Your task to perform on an android device: find photos in the google photos app Image 0: 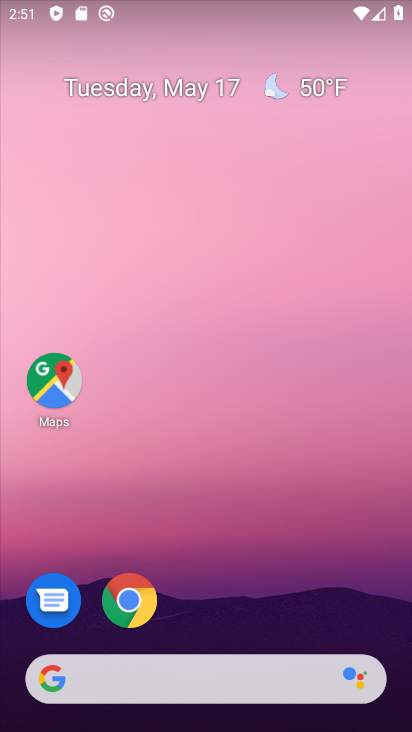
Step 0: drag from (268, 595) to (264, 114)
Your task to perform on an android device: find photos in the google photos app Image 1: 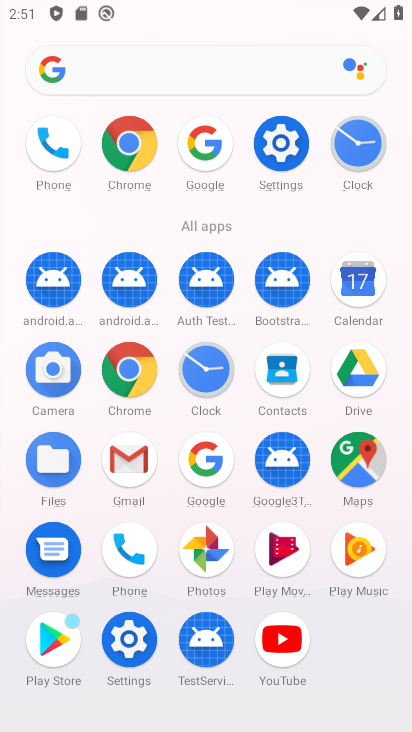
Step 1: click (201, 549)
Your task to perform on an android device: find photos in the google photos app Image 2: 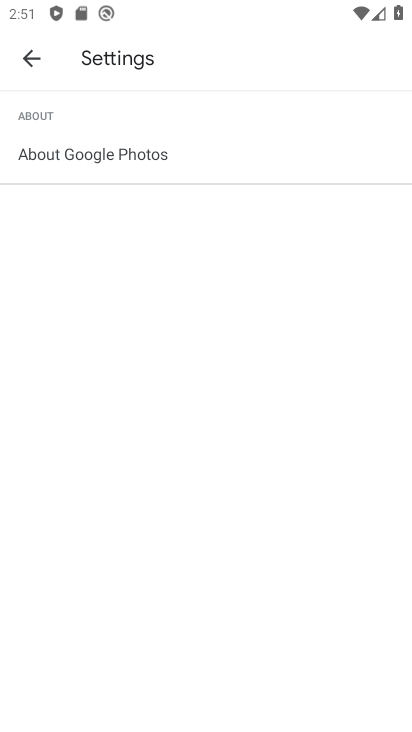
Step 2: press back button
Your task to perform on an android device: find photos in the google photos app Image 3: 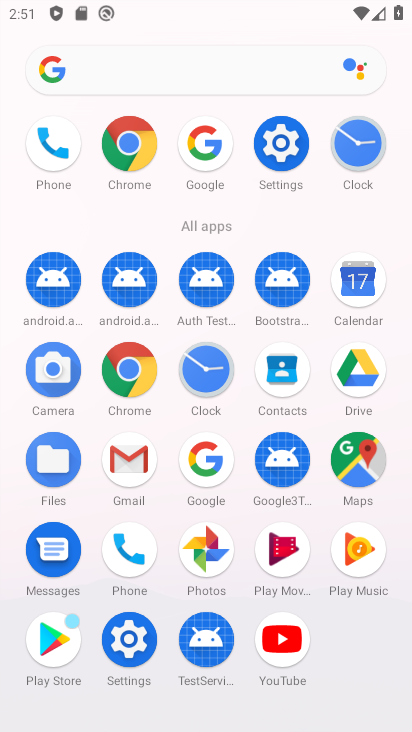
Step 3: click (199, 565)
Your task to perform on an android device: find photos in the google photos app Image 4: 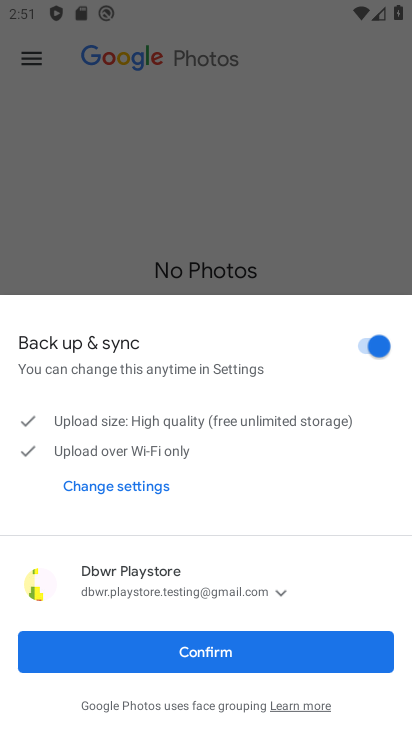
Step 4: click (217, 645)
Your task to perform on an android device: find photos in the google photos app Image 5: 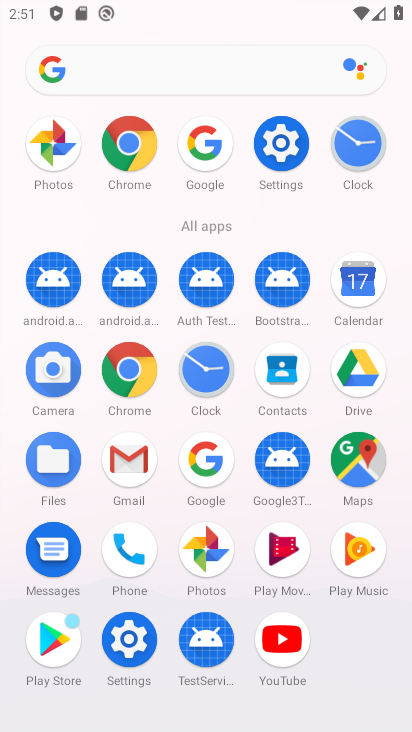
Step 5: click (196, 546)
Your task to perform on an android device: find photos in the google photos app Image 6: 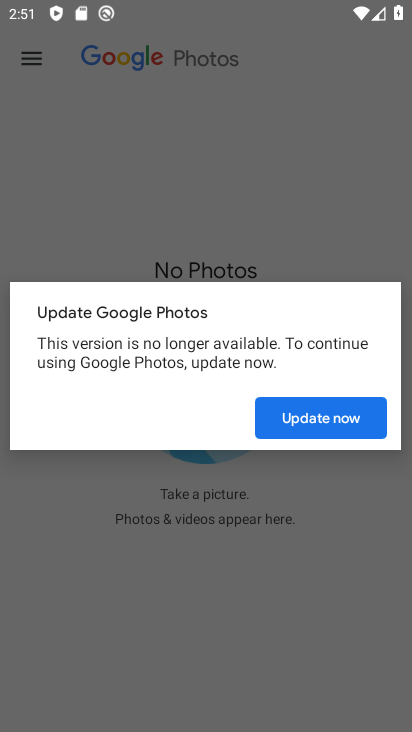
Step 6: click (318, 407)
Your task to perform on an android device: find photos in the google photos app Image 7: 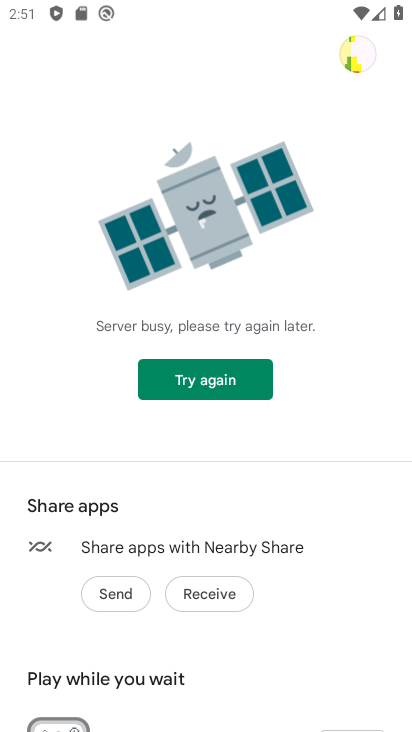
Step 7: task complete